Your task to perform on an android device: turn on the 24-hour format for clock Image 0: 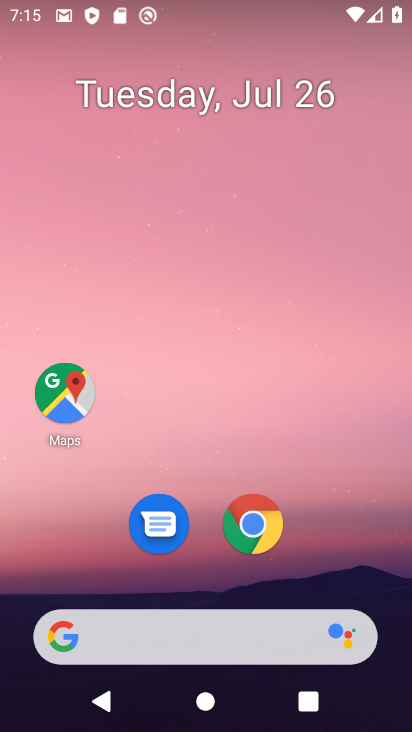
Step 0: drag from (174, 629) to (376, 43)
Your task to perform on an android device: turn on the 24-hour format for clock Image 1: 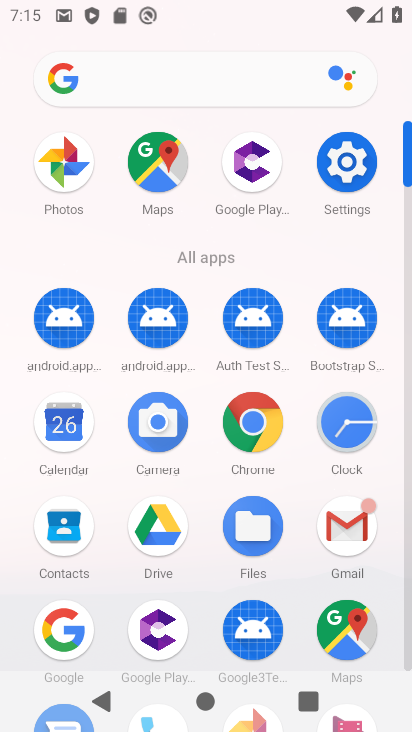
Step 1: click (337, 434)
Your task to perform on an android device: turn on the 24-hour format for clock Image 2: 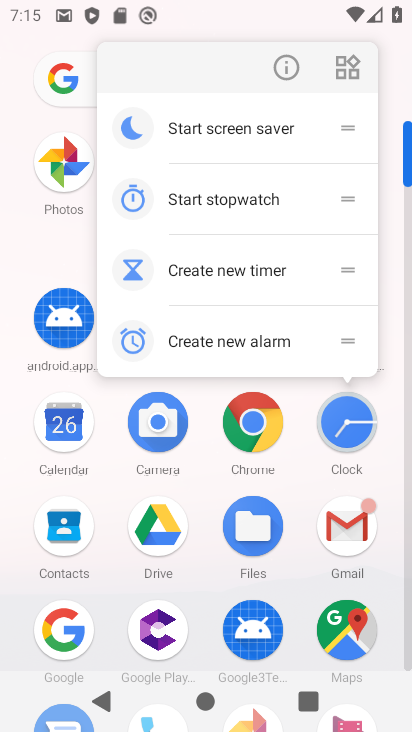
Step 2: click (334, 430)
Your task to perform on an android device: turn on the 24-hour format for clock Image 3: 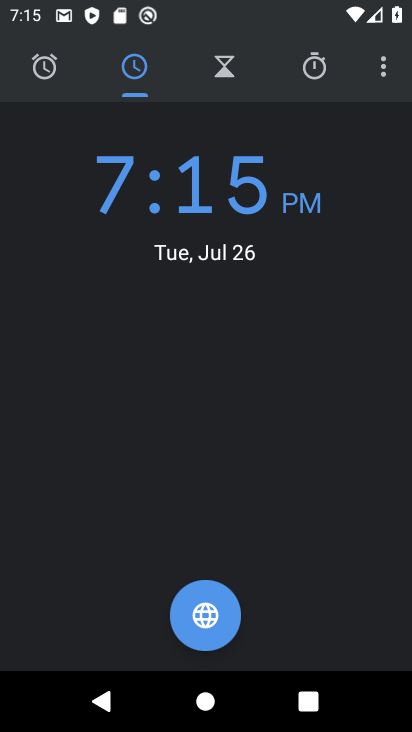
Step 3: click (388, 65)
Your task to perform on an android device: turn on the 24-hour format for clock Image 4: 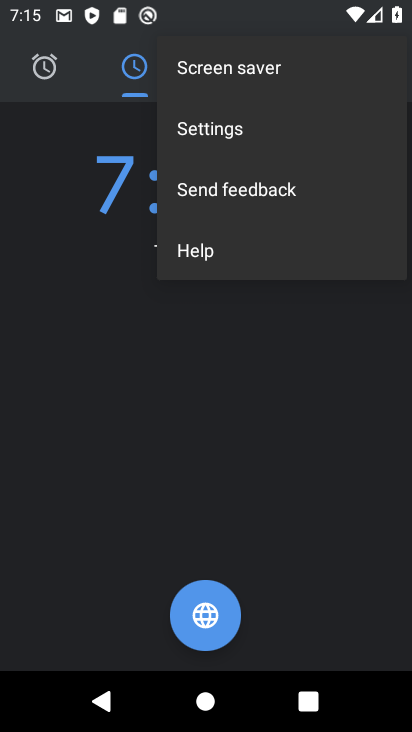
Step 4: click (223, 131)
Your task to perform on an android device: turn on the 24-hour format for clock Image 5: 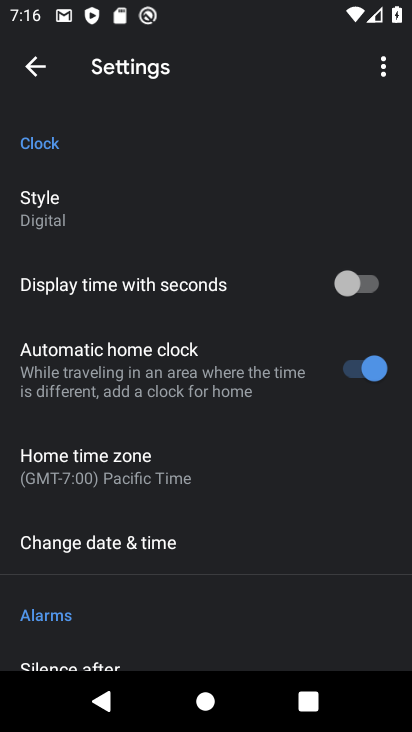
Step 5: click (151, 550)
Your task to perform on an android device: turn on the 24-hour format for clock Image 6: 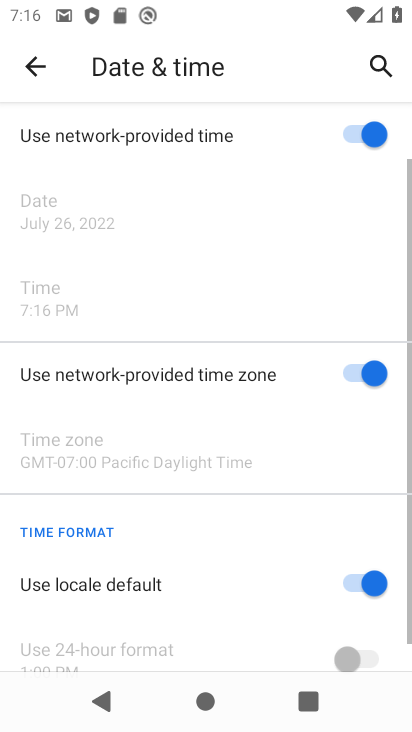
Step 6: drag from (212, 565) to (326, 171)
Your task to perform on an android device: turn on the 24-hour format for clock Image 7: 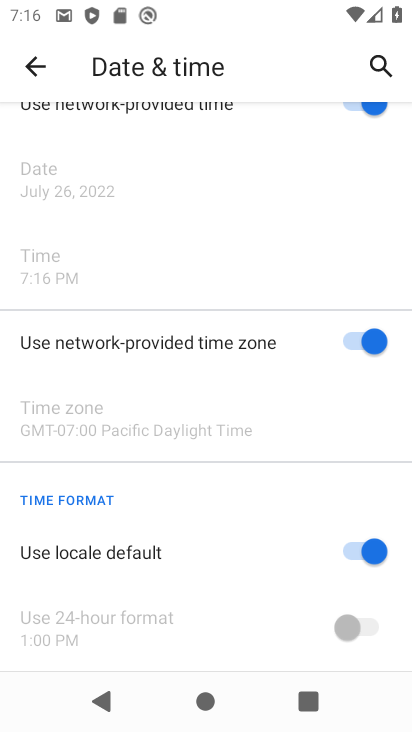
Step 7: click (345, 553)
Your task to perform on an android device: turn on the 24-hour format for clock Image 8: 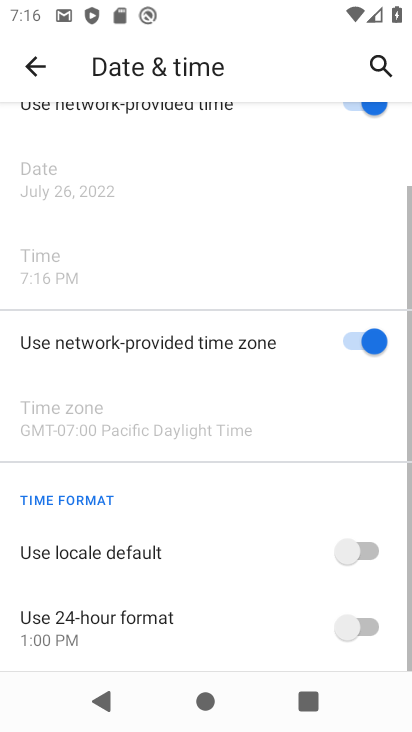
Step 8: click (365, 629)
Your task to perform on an android device: turn on the 24-hour format for clock Image 9: 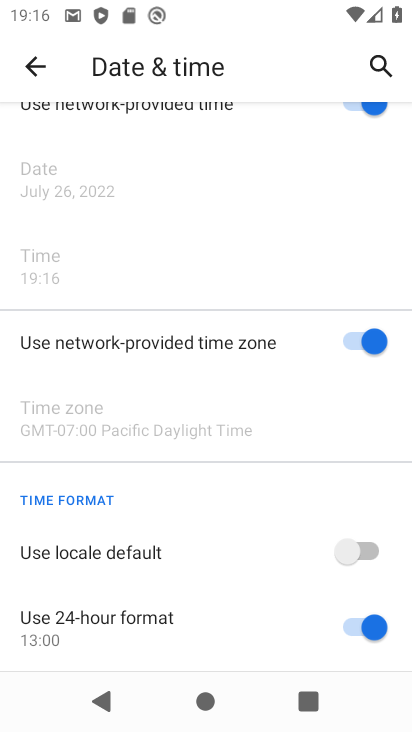
Step 9: task complete